Your task to perform on an android device: Do I have any events tomorrow? Image 0: 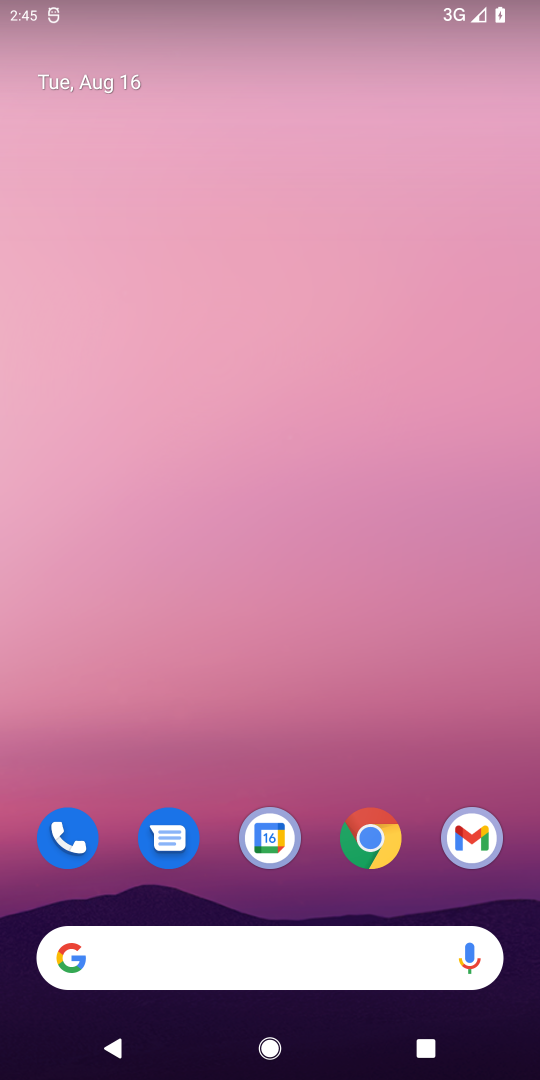
Step 0: press home button
Your task to perform on an android device: Do I have any events tomorrow? Image 1: 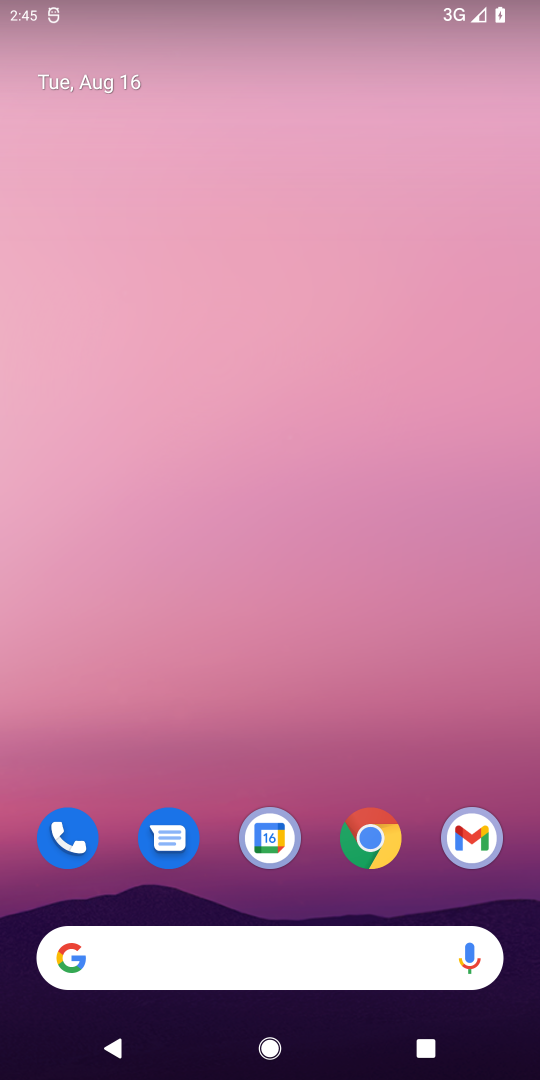
Step 1: drag from (317, 746) to (404, 1)
Your task to perform on an android device: Do I have any events tomorrow? Image 2: 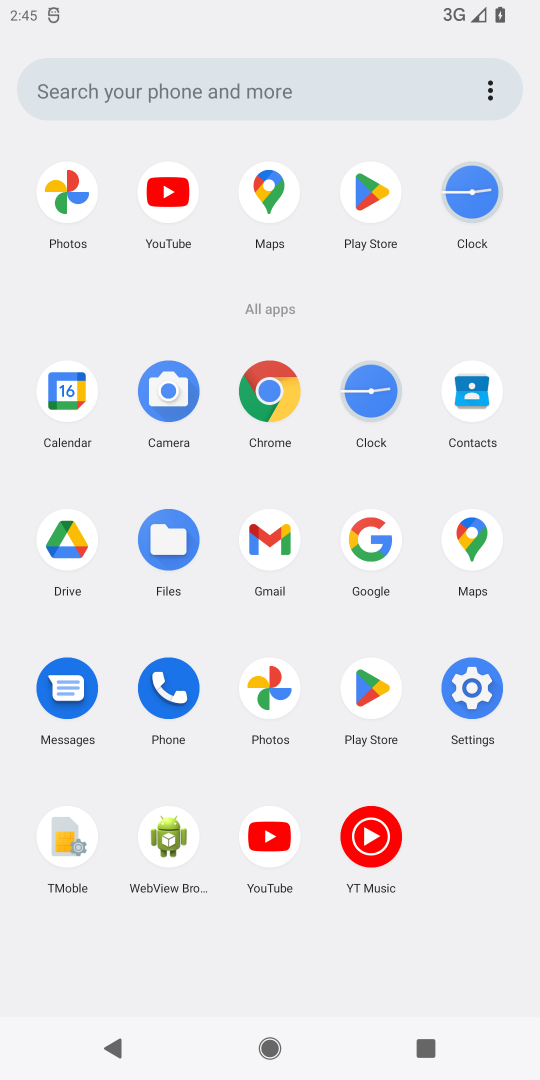
Step 2: click (53, 394)
Your task to perform on an android device: Do I have any events tomorrow? Image 3: 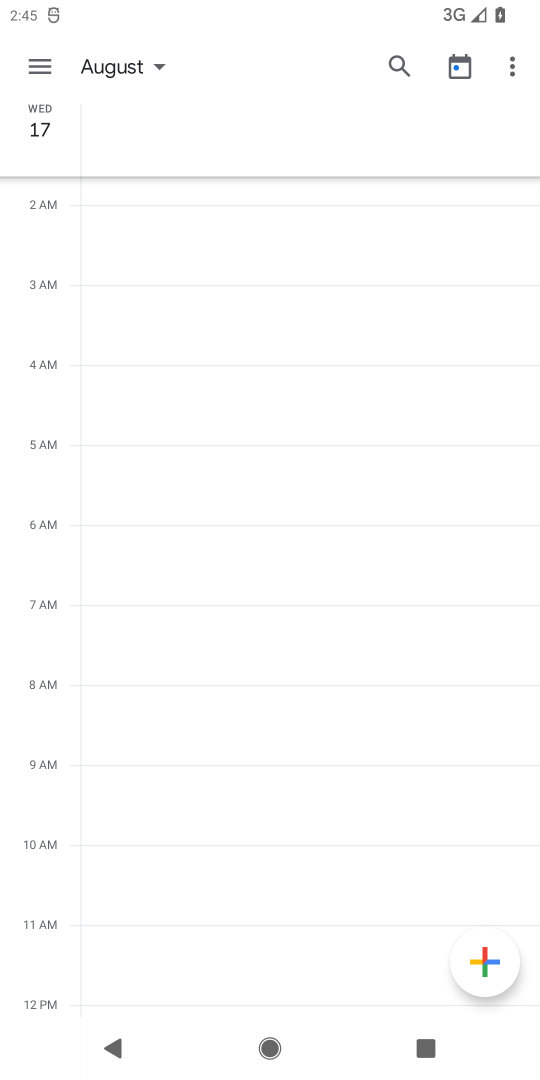
Step 3: click (44, 72)
Your task to perform on an android device: Do I have any events tomorrow? Image 4: 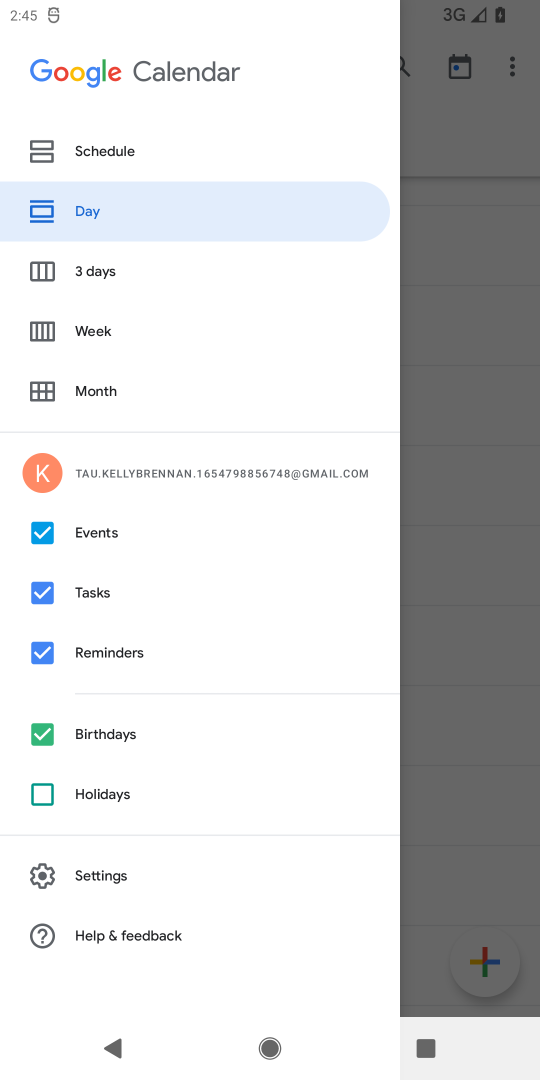
Step 4: click (107, 146)
Your task to perform on an android device: Do I have any events tomorrow? Image 5: 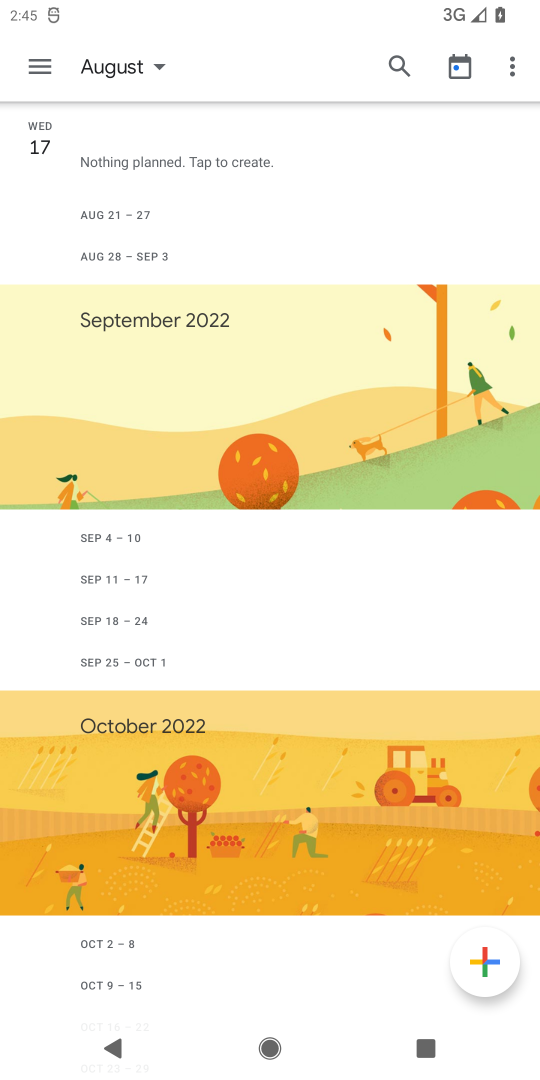
Step 5: task complete